Your task to perform on an android device: Go to internet settings Image 0: 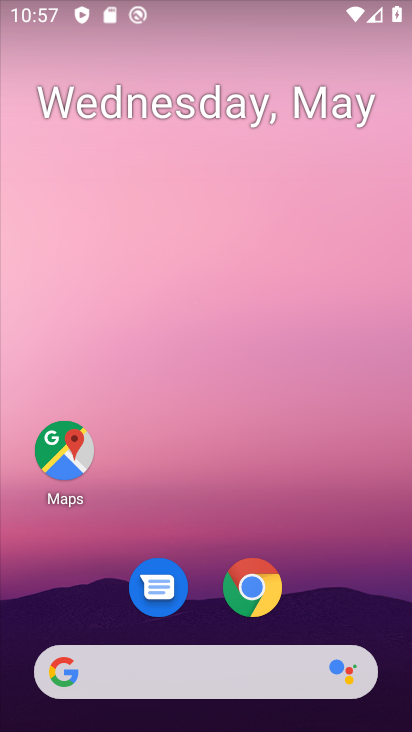
Step 0: drag from (209, 606) to (200, 11)
Your task to perform on an android device: Go to internet settings Image 1: 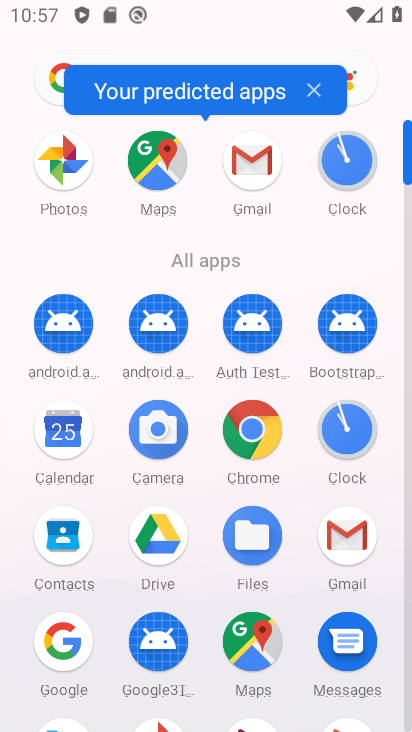
Step 1: drag from (203, 395) to (200, 60)
Your task to perform on an android device: Go to internet settings Image 2: 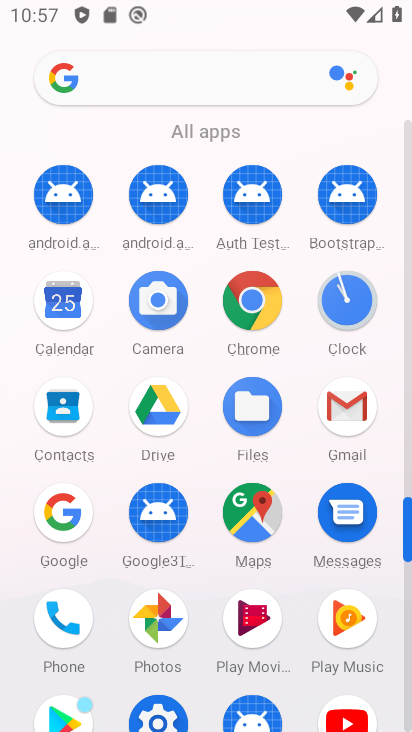
Step 2: click (158, 711)
Your task to perform on an android device: Go to internet settings Image 3: 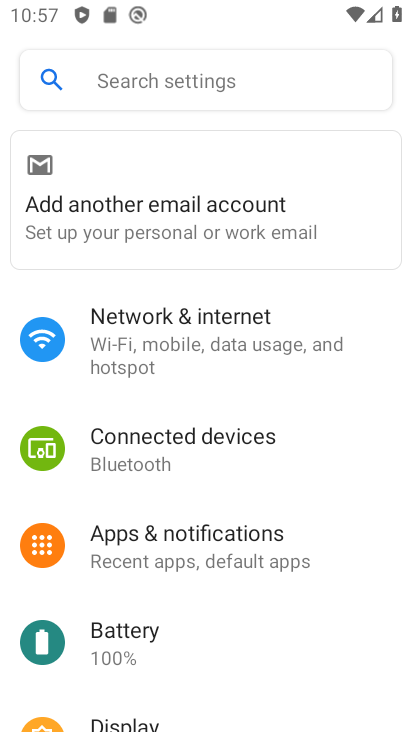
Step 3: click (139, 335)
Your task to perform on an android device: Go to internet settings Image 4: 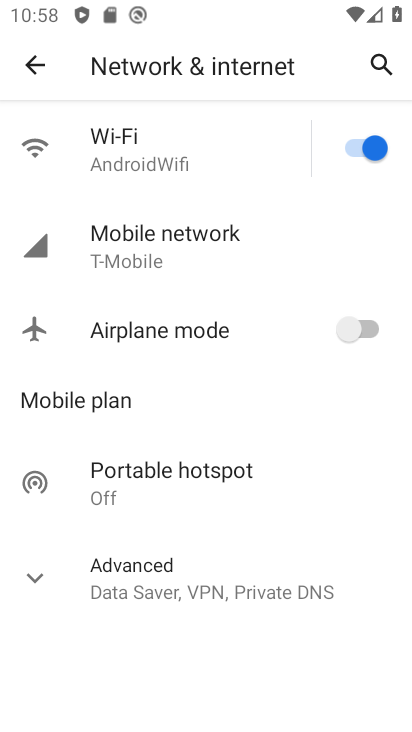
Step 4: task complete